Your task to perform on an android device: Open calendar and show me the third week of next month Image 0: 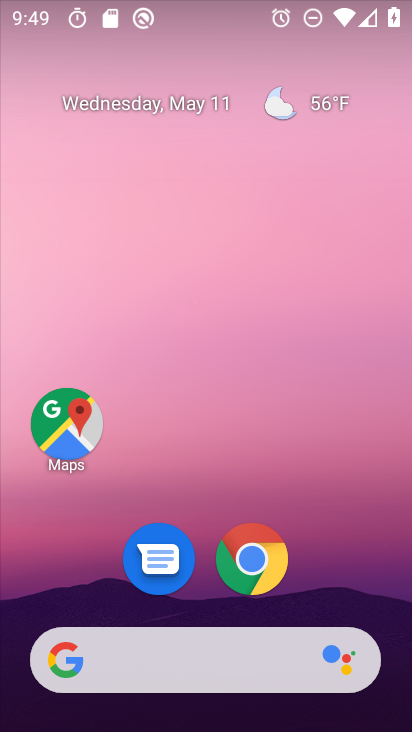
Step 0: click (271, 582)
Your task to perform on an android device: Open calendar and show me the third week of next month Image 1: 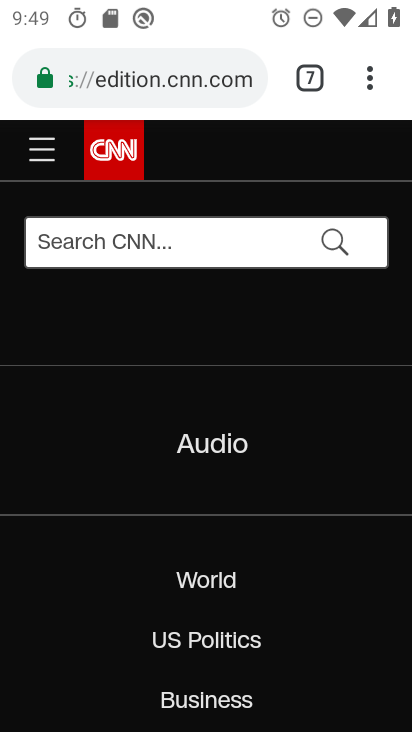
Step 1: press home button
Your task to perform on an android device: Open calendar and show me the third week of next month Image 2: 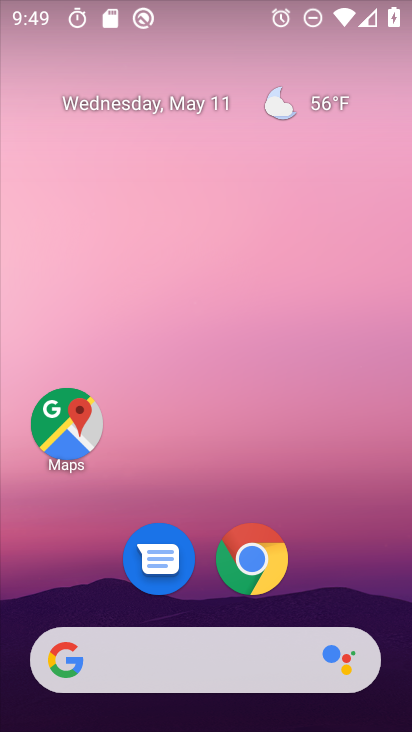
Step 2: drag from (323, 549) to (324, 244)
Your task to perform on an android device: Open calendar and show me the third week of next month Image 3: 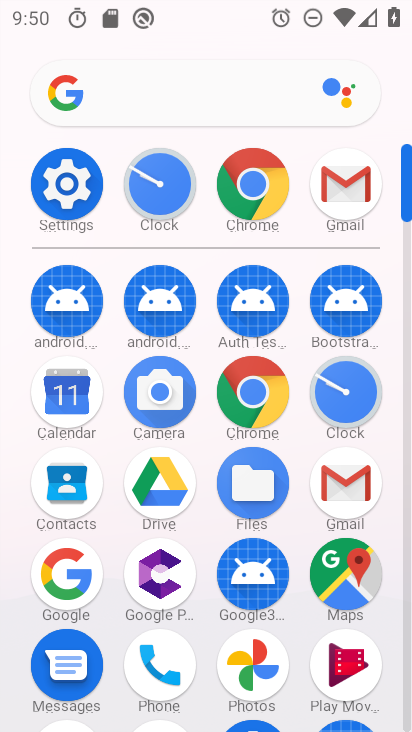
Step 3: click (84, 407)
Your task to perform on an android device: Open calendar and show me the third week of next month Image 4: 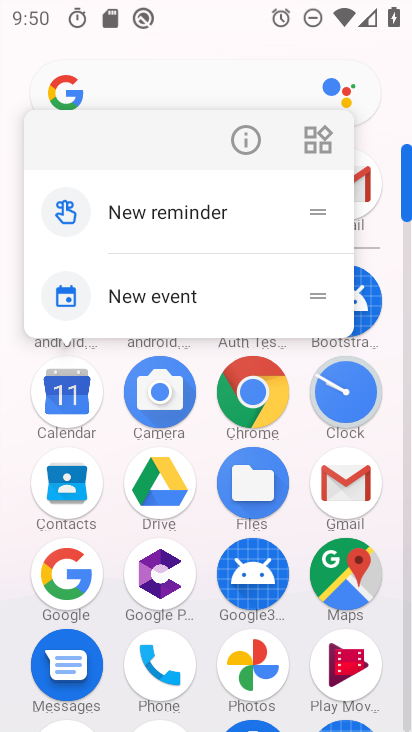
Step 4: click (71, 389)
Your task to perform on an android device: Open calendar and show me the third week of next month Image 5: 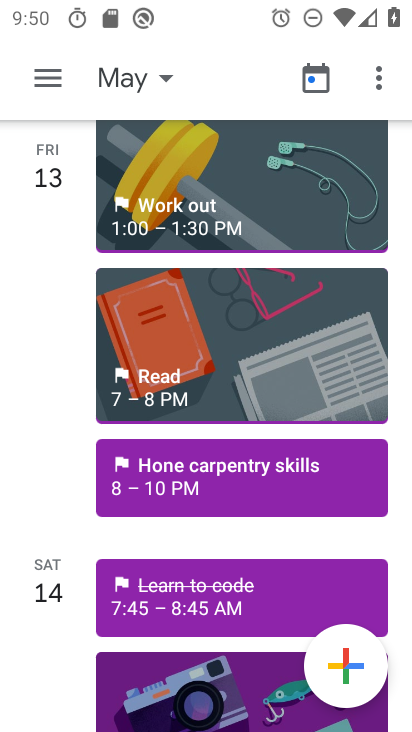
Step 5: click (64, 76)
Your task to perform on an android device: Open calendar and show me the third week of next month Image 6: 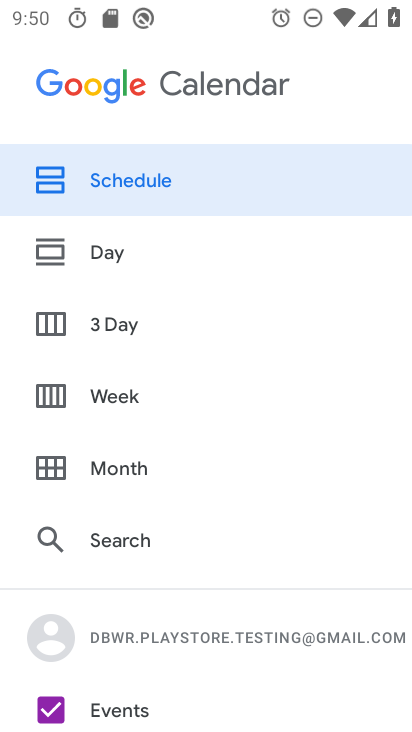
Step 6: click (132, 469)
Your task to perform on an android device: Open calendar and show me the third week of next month Image 7: 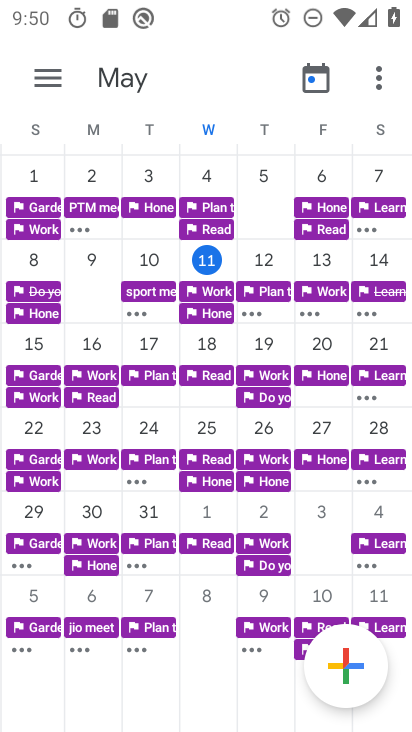
Step 7: task complete